Your task to perform on an android device: turn off airplane mode Image 0: 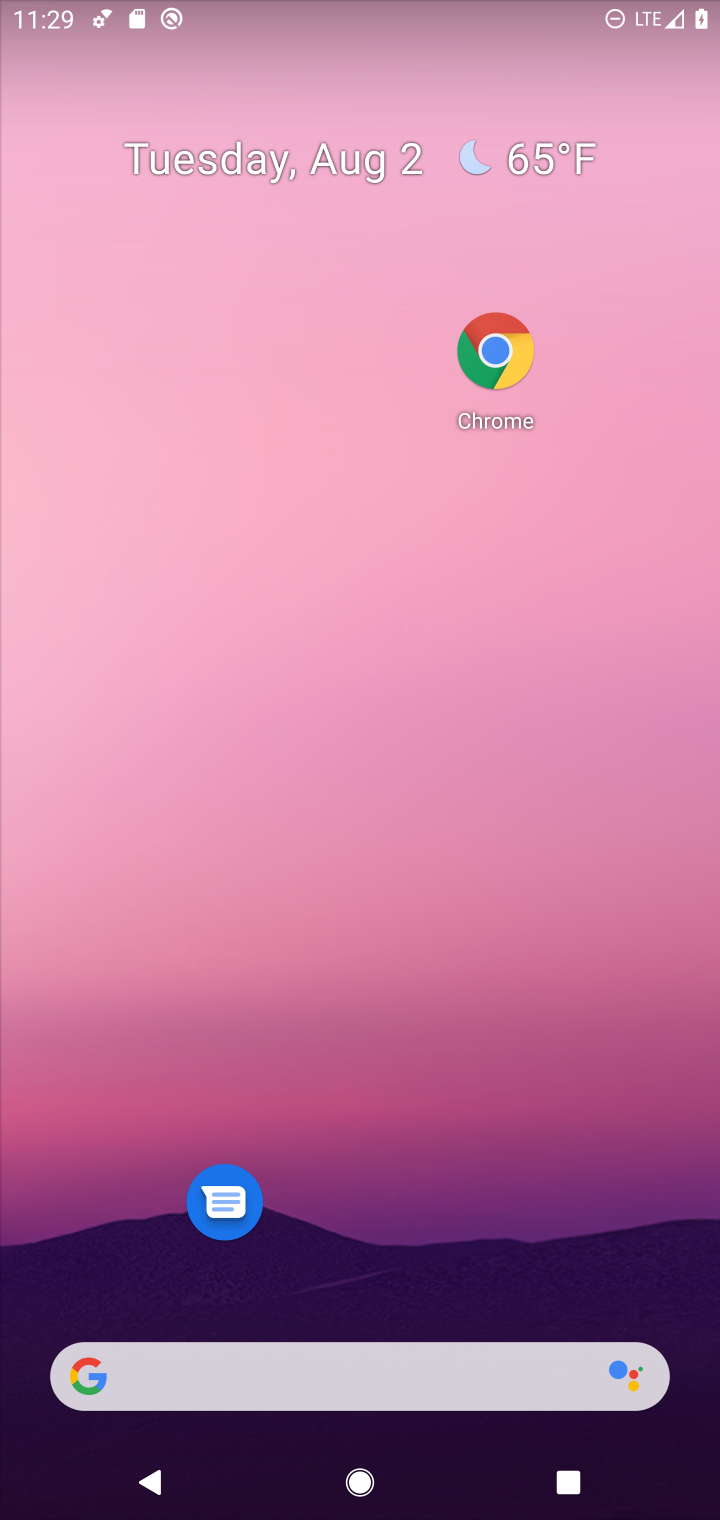
Step 0: drag from (363, 1309) to (438, 110)
Your task to perform on an android device: turn off airplane mode Image 1: 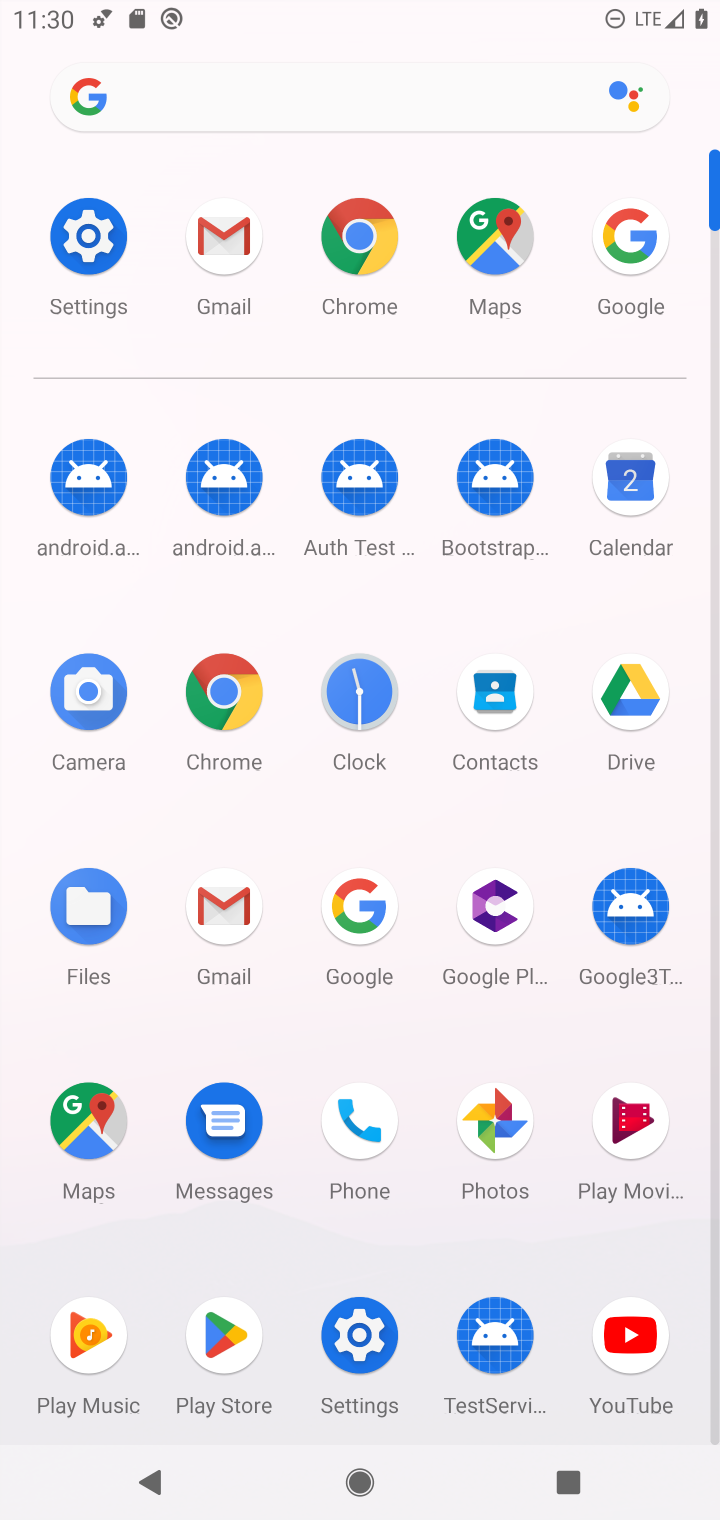
Step 1: click (91, 241)
Your task to perform on an android device: turn off airplane mode Image 2: 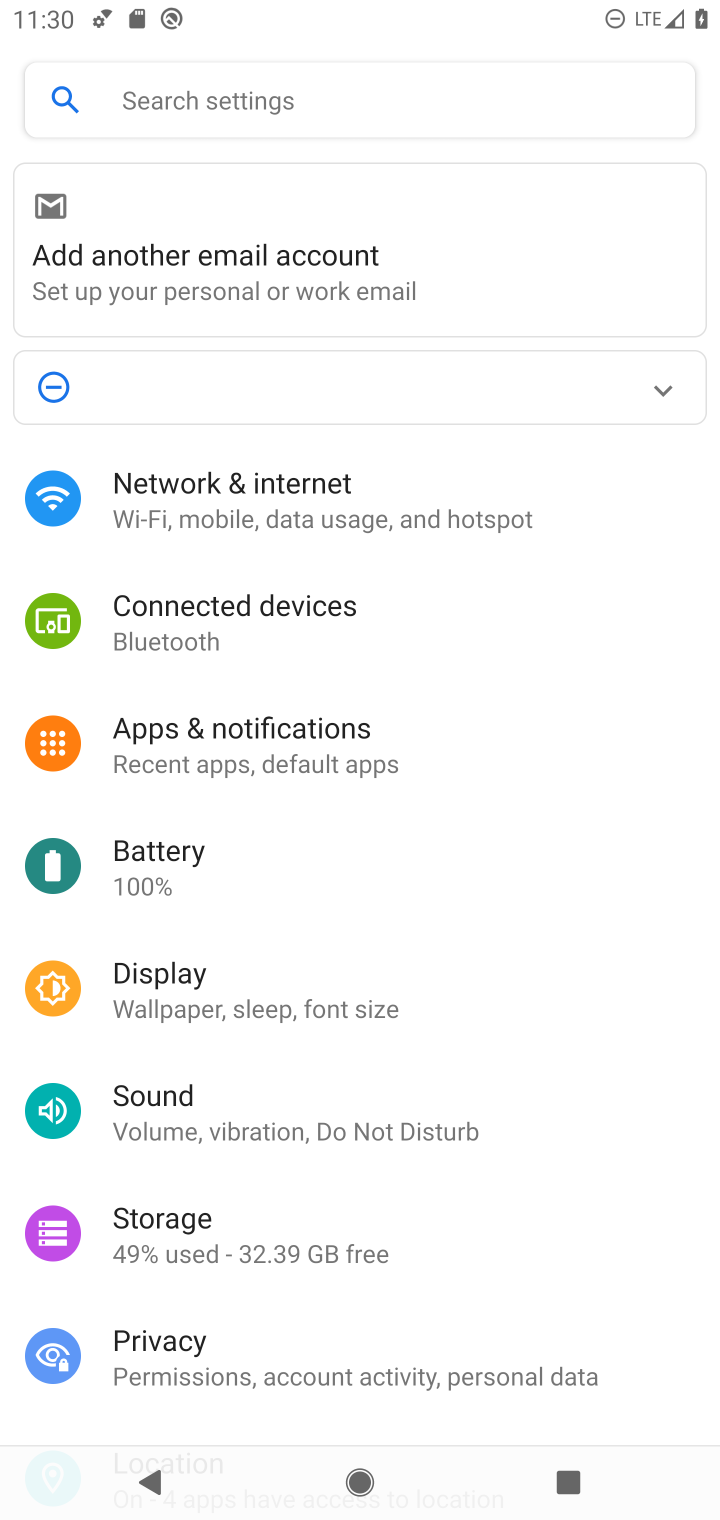
Step 2: click (186, 495)
Your task to perform on an android device: turn off airplane mode Image 3: 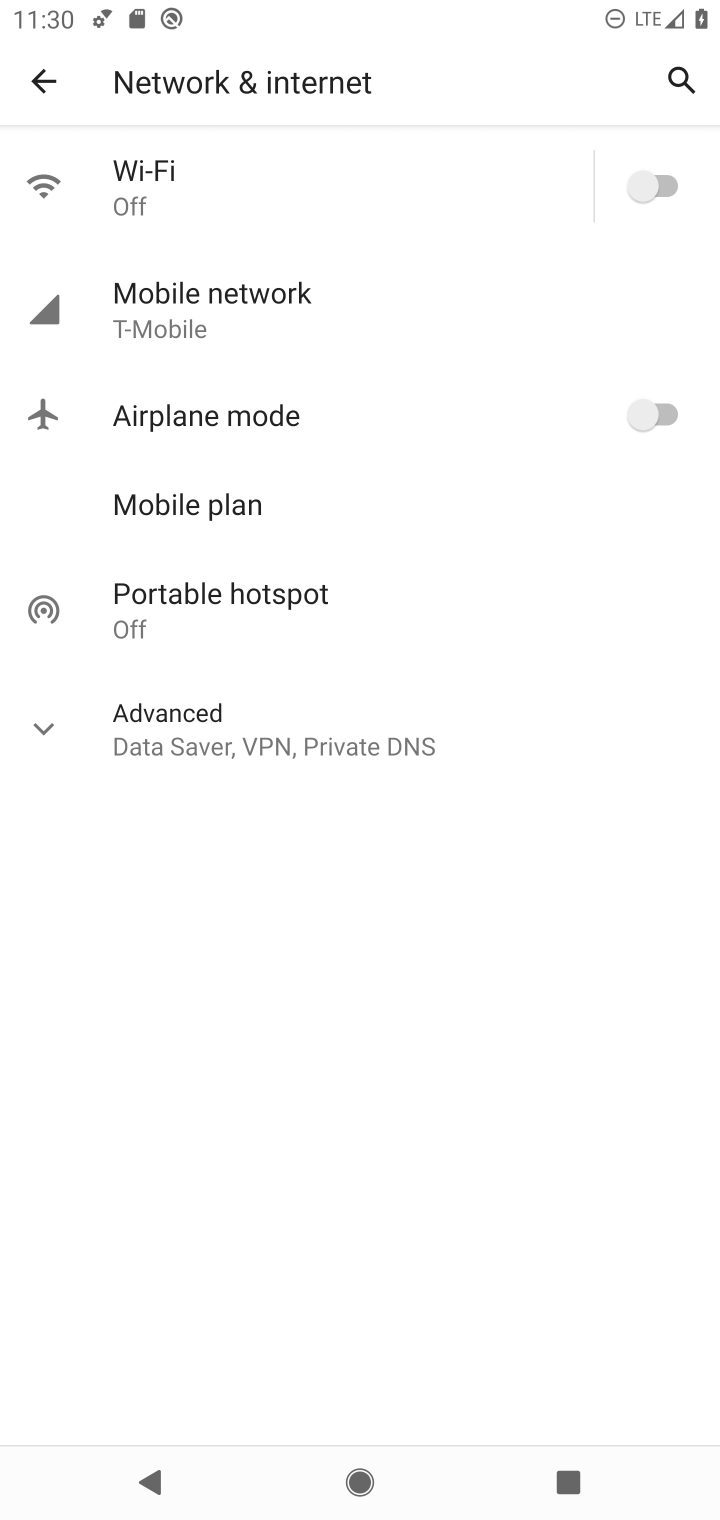
Step 3: task complete